Your task to perform on an android device: Check the weather Image 0: 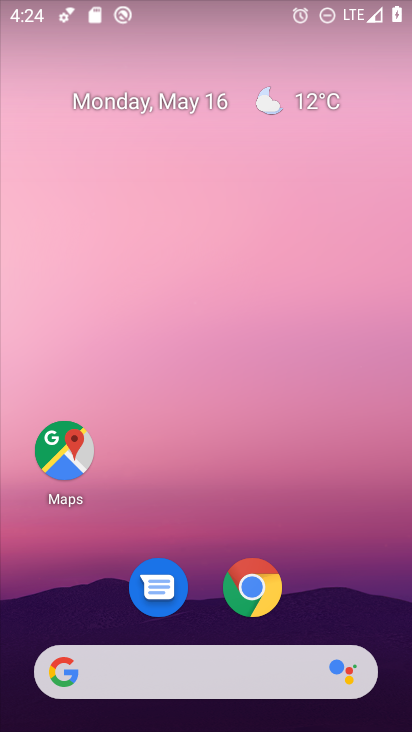
Step 0: click (326, 97)
Your task to perform on an android device: Check the weather Image 1: 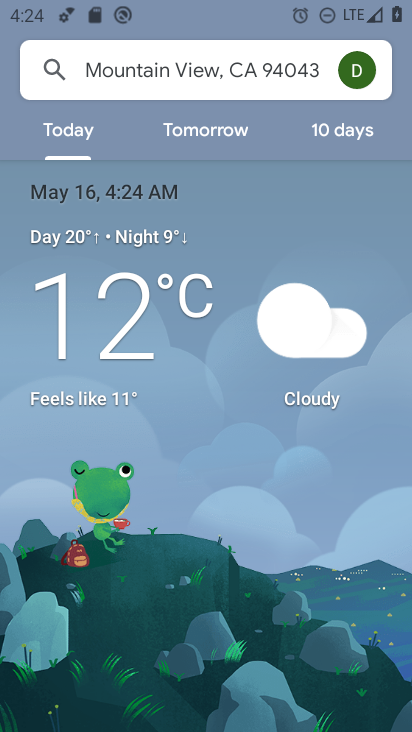
Step 1: task complete